Your task to perform on an android device: turn on javascript in the chrome app Image 0: 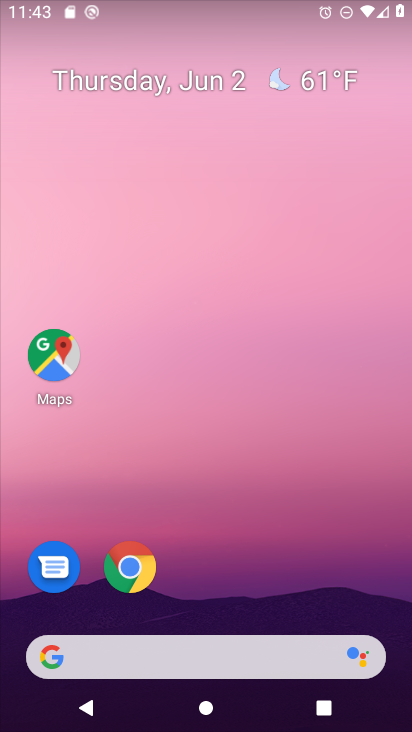
Step 0: drag from (288, 548) to (270, 128)
Your task to perform on an android device: turn on javascript in the chrome app Image 1: 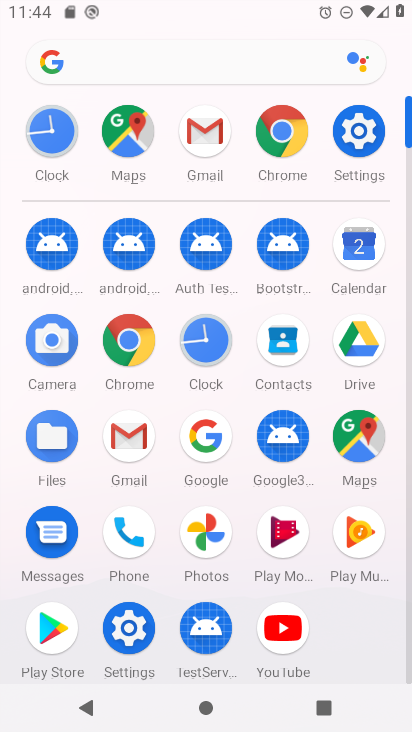
Step 1: click (287, 121)
Your task to perform on an android device: turn on javascript in the chrome app Image 2: 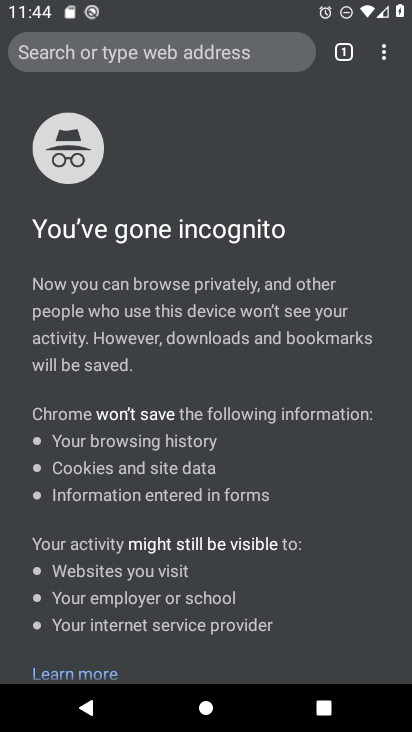
Step 2: drag from (380, 59) to (248, 384)
Your task to perform on an android device: turn on javascript in the chrome app Image 3: 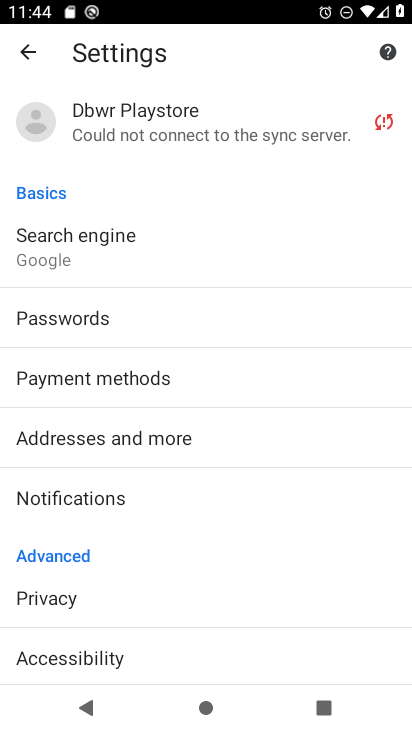
Step 3: drag from (158, 628) to (167, 55)
Your task to perform on an android device: turn on javascript in the chrome app Image 4: 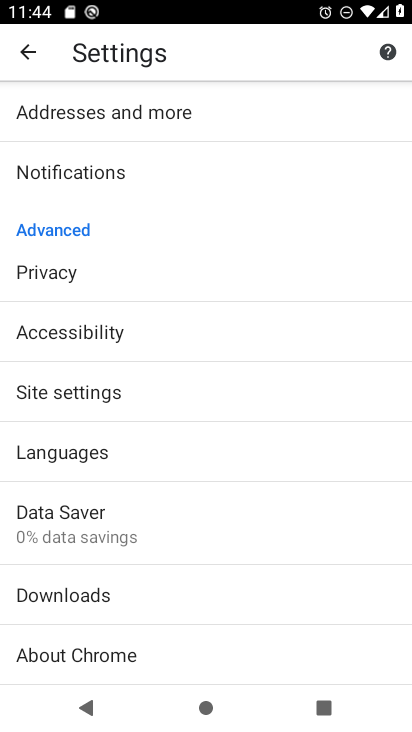
Step 4: click (142, 393)
Your task to perform on an android device: turn on javascript in the chrome app Image 5: 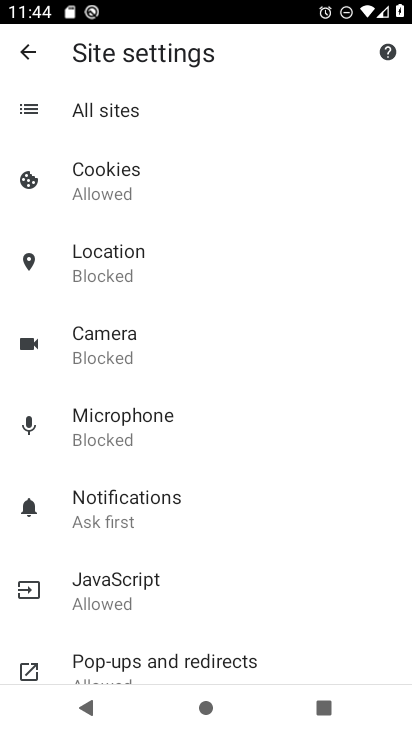
Step 5: click (145, 584)
Your task to perform on an android device: turn on javascript in the chrome app Image 6: 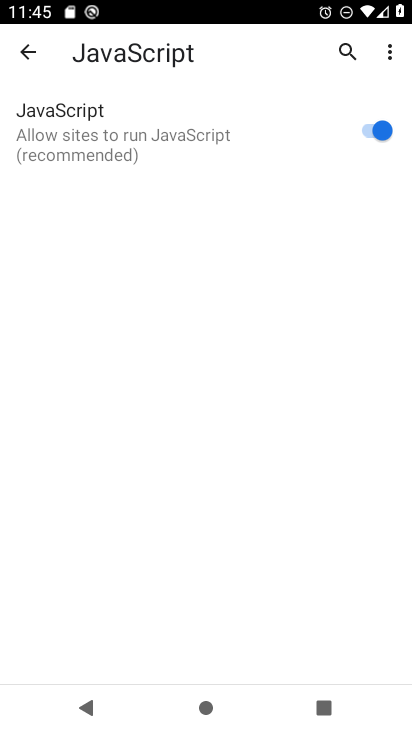
Step 6: task complete